Your task to perform on an android device: Open wifi settings Image 0: 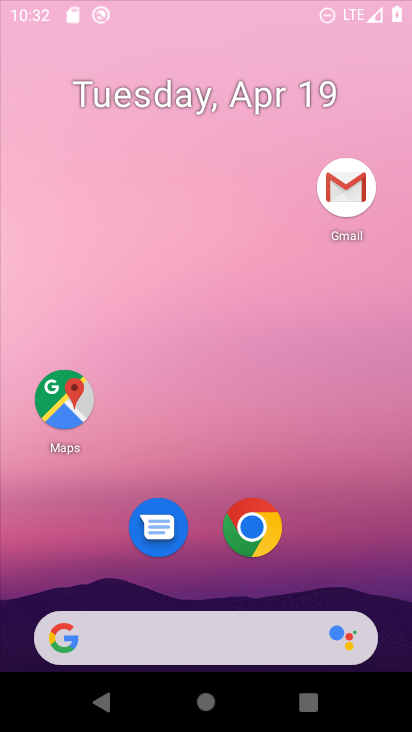
Step 0: click (325, 111)
Your task to perform on an android device: Open wifi settings Image 1: 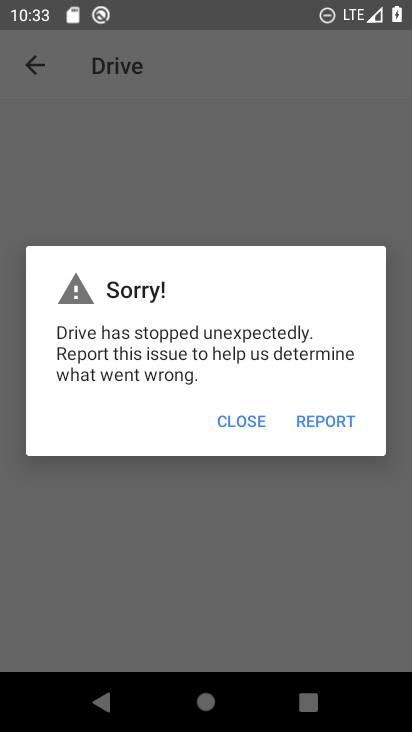
Step 1: press home button
Your task to perform on an android device: Open wifi settings Image 2: 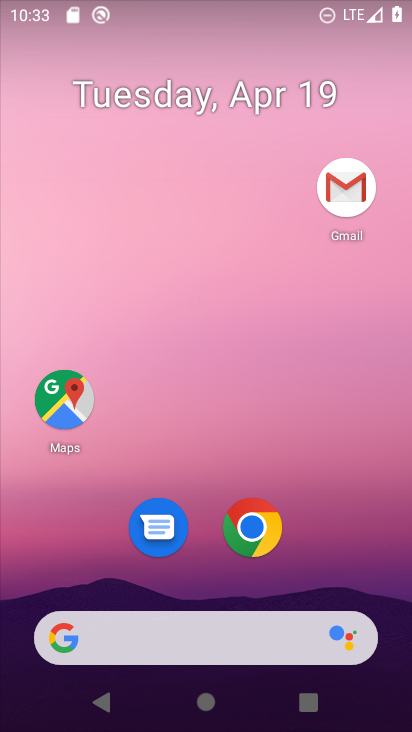
Step 2: drag from (348, 547) to (295, 111)
Your task to perform on an android device: Open wifi settings Image 3: 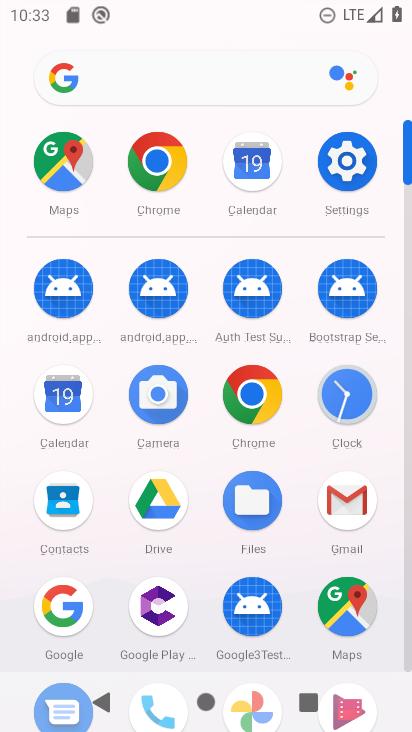
Step 3: click (344, 172)
Your task to perform on an android device: Open wifi settings Image 4: 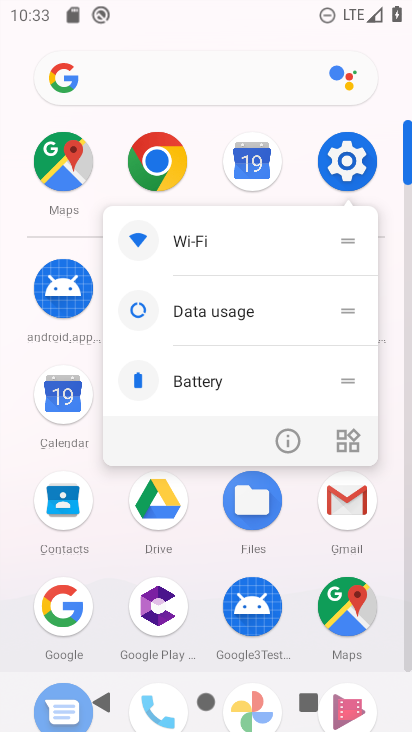
Step 4: click (343, 171)
Your task to perform on an android device: Open wifi settings Image 5: 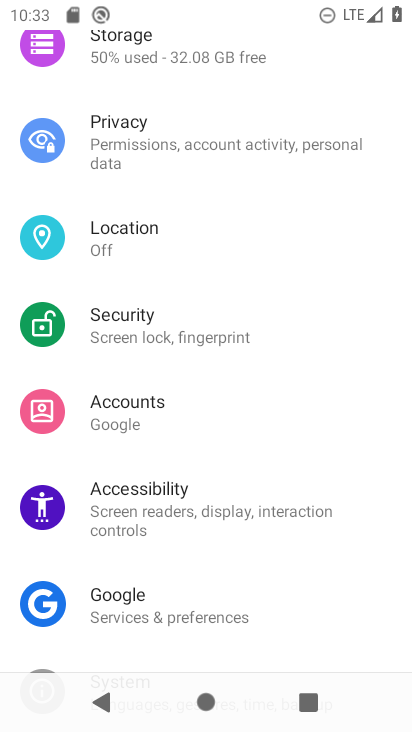
Step 5: drag from (339, 115) to (340, 533)
Your task to perform on an android device: Open wifi settings Image 6: 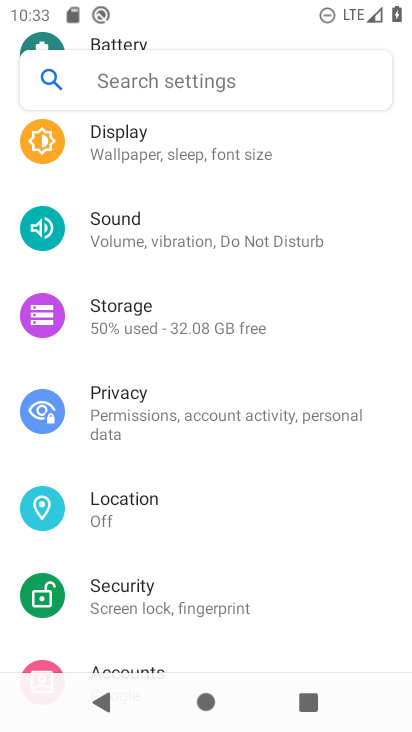
Step 6: drag from (339, 184) to (365, 563)
Your task to perform on an android device: Open wifi settings Image 7: 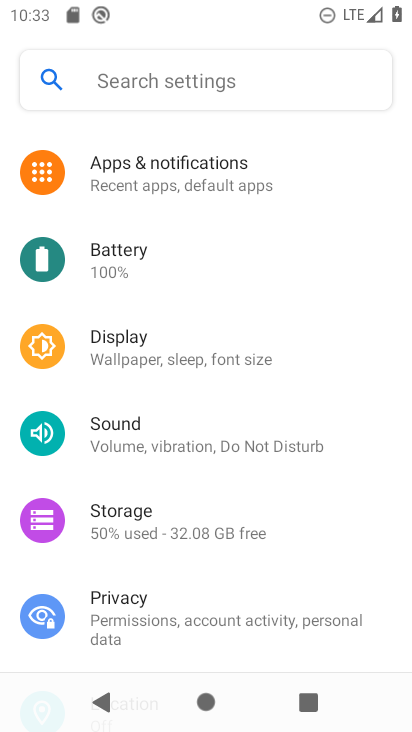
Step 7: drag from (364, 216) to (321, 581)
Your task to perform on an android device: Open wifi settings Image 8: 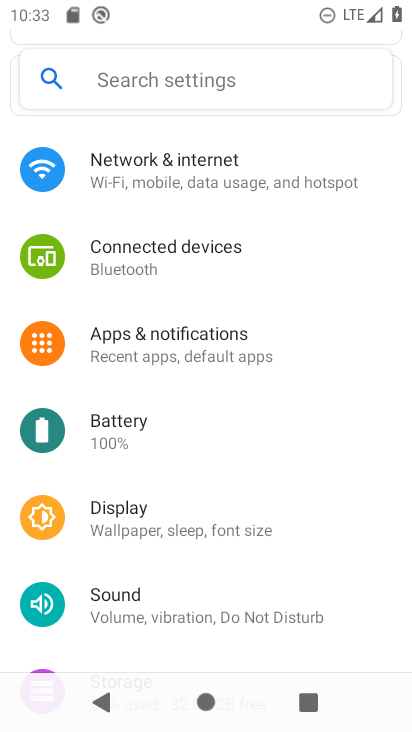
Step 8: click (234, 158)
Your task to perform on an android device: Open wifi settings Image 9: 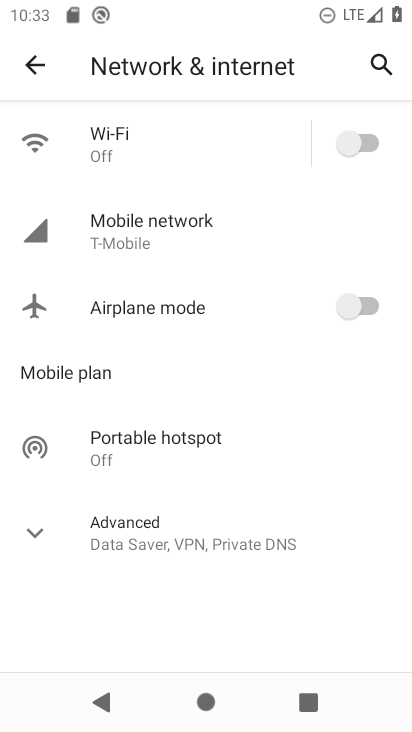
Step 9: click (231, 152)
Your task to perform on an android device: Open wifi settings Image 10: 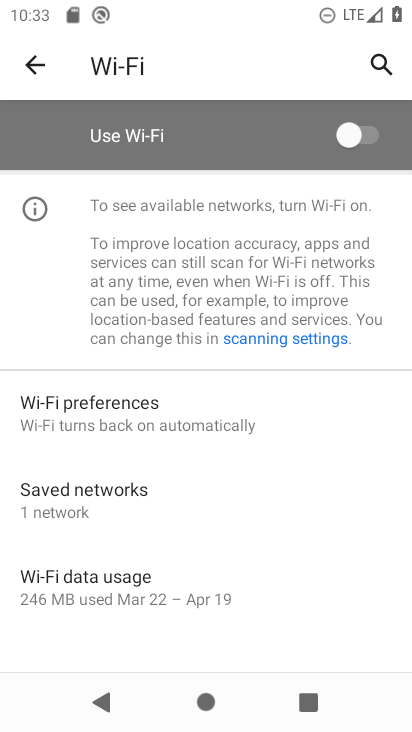
Step 10: task complete